Your task to perform on an android device: set an alarm Image 0: 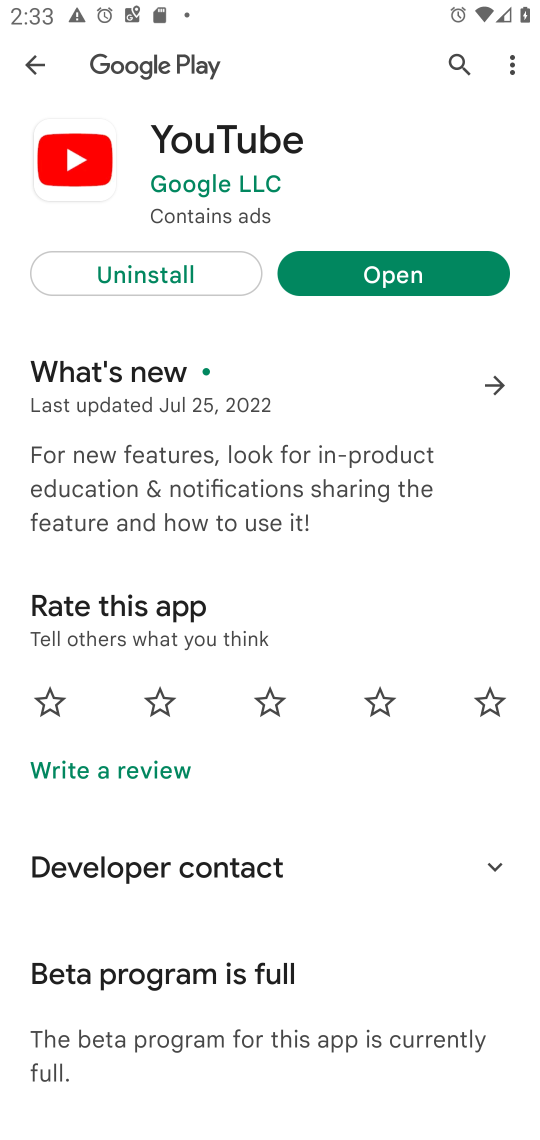
Step 0: press home button
Your task to perform on an android device: set an alarm Image 1: 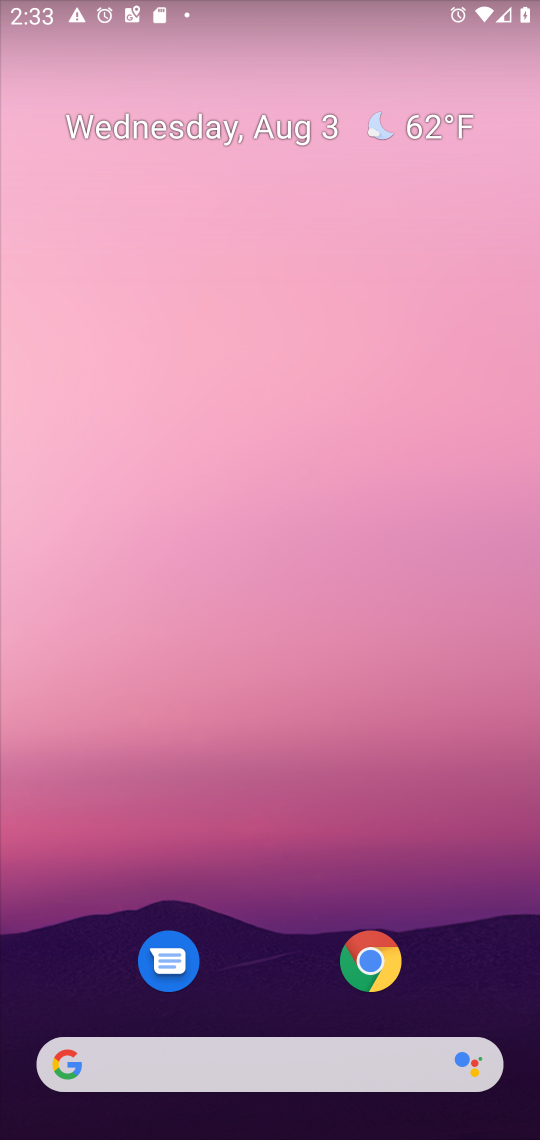
Step 1: drag from (279, 939) to (239, 29)
Your task to perform on an android device: set an alarm Image 2: 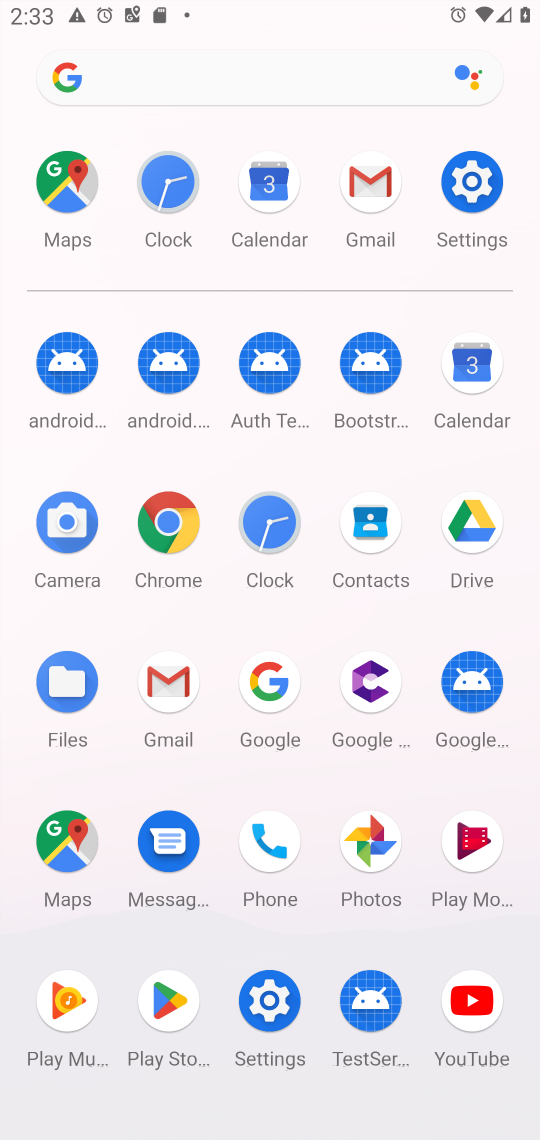
Step 2: click (166, 184)
Your task to perform on an android device: set an alarm Image 3: 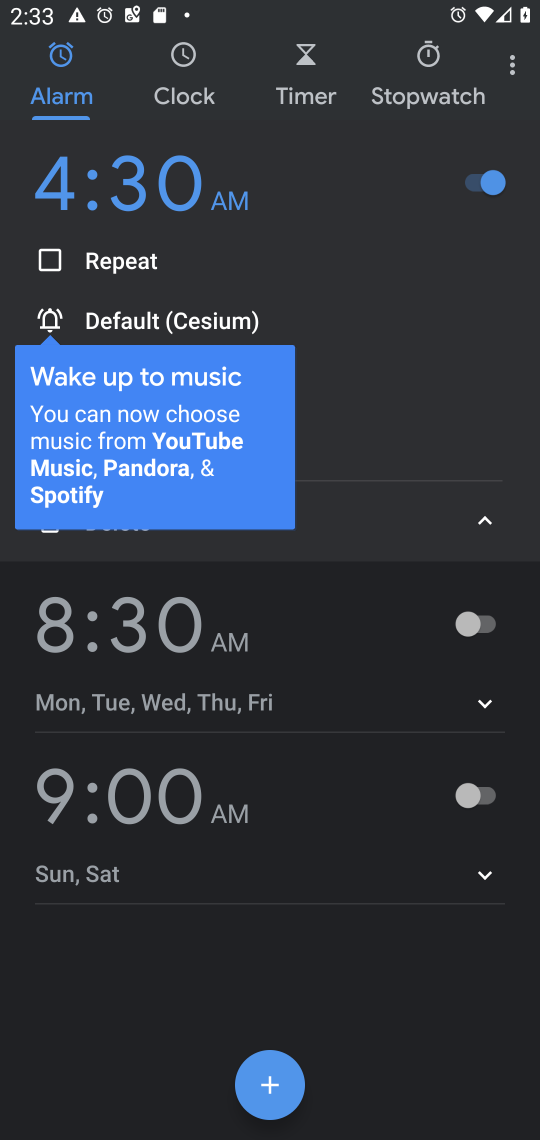
Step 3: click (270, 1100)
Your task to perform on an android device: set an alarm Image 4: 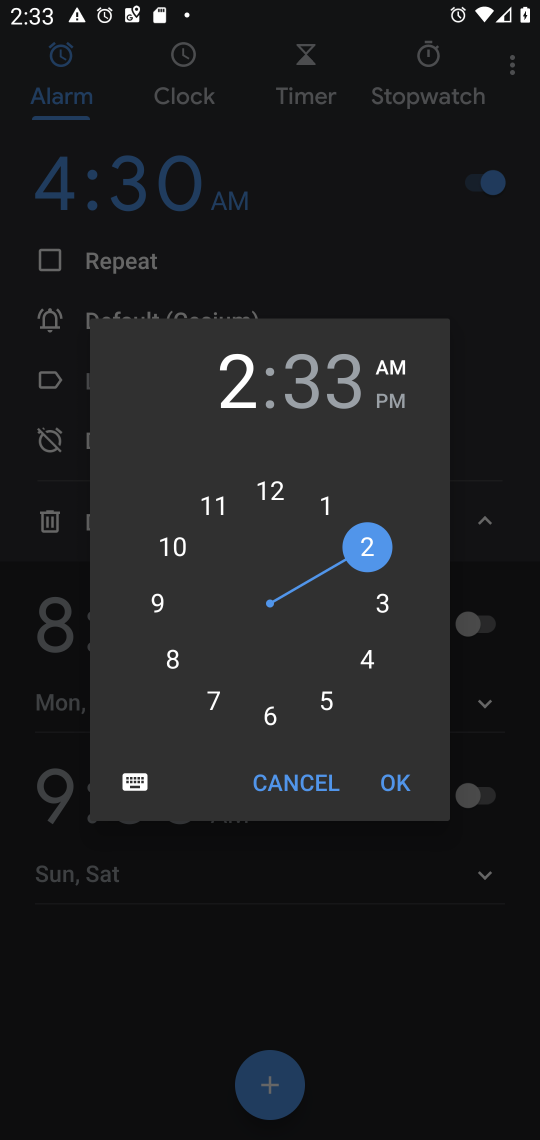
Step 4: click (273, 721)
Your task to perform on an android device: set an alarm Image 5: 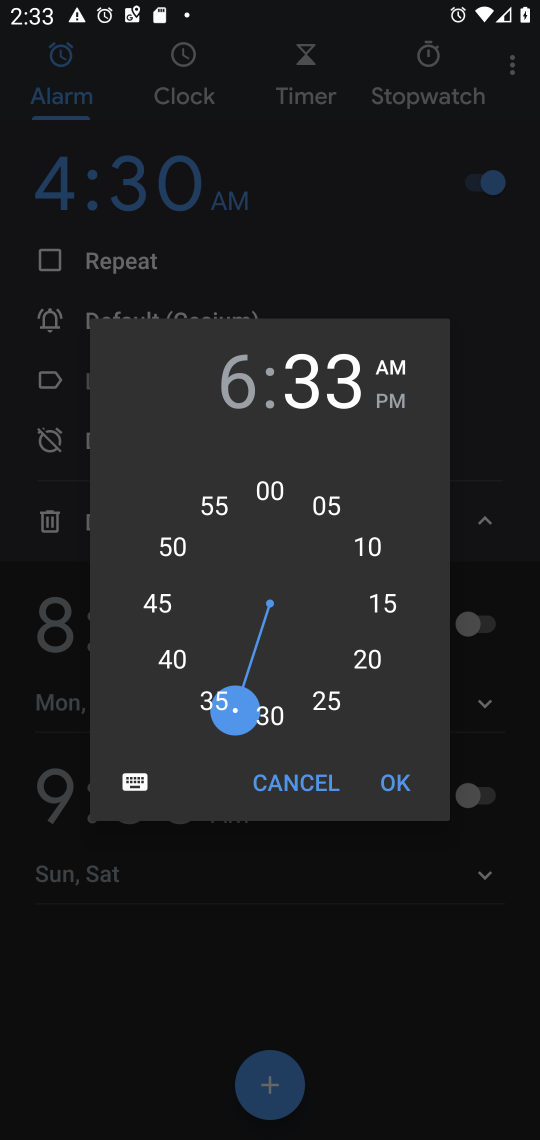
Step 5: click (276, 497)
Your task to perform on an android device: set an alarm Image 6: 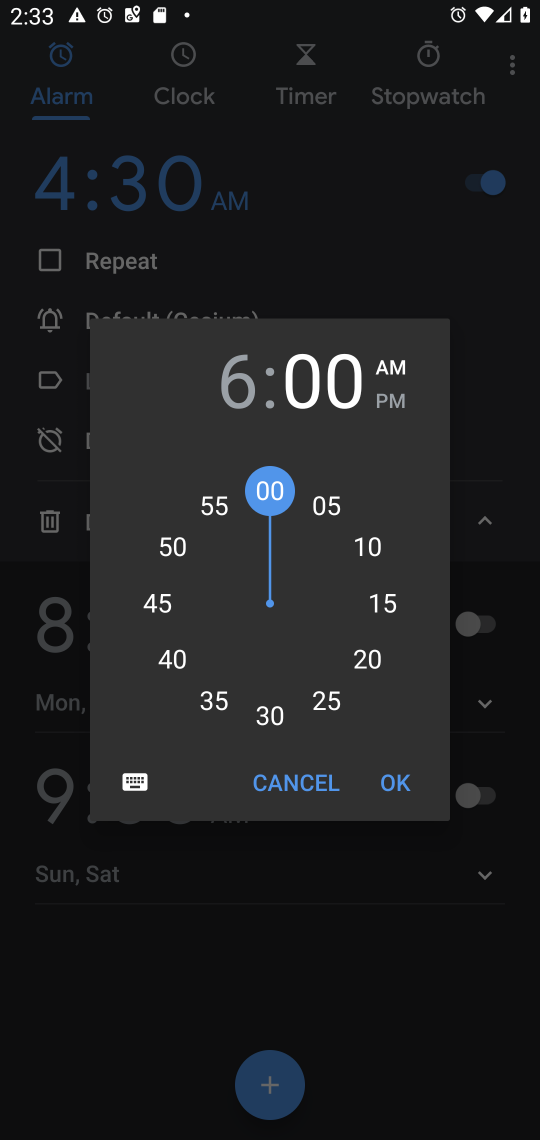
Step 6: click (396, 799)
Your task to perform on an android device: set an alarm Image 7: 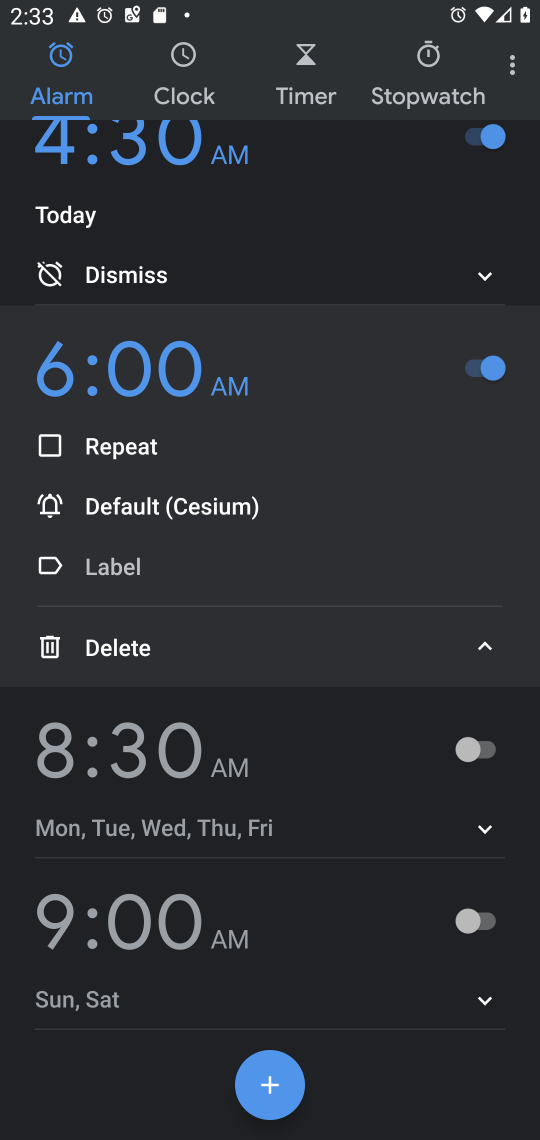
Step 7: task complete